Your task to perform on an android device: change the clock style Image 0: 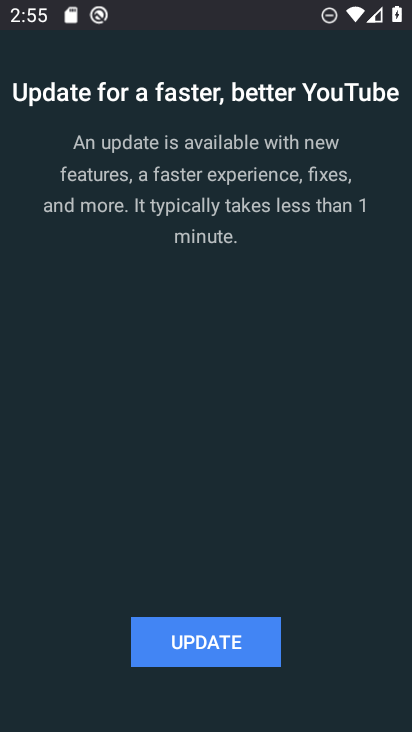
Step 0: press home button
Your task to perform on an android device: change the clock style Image 1: 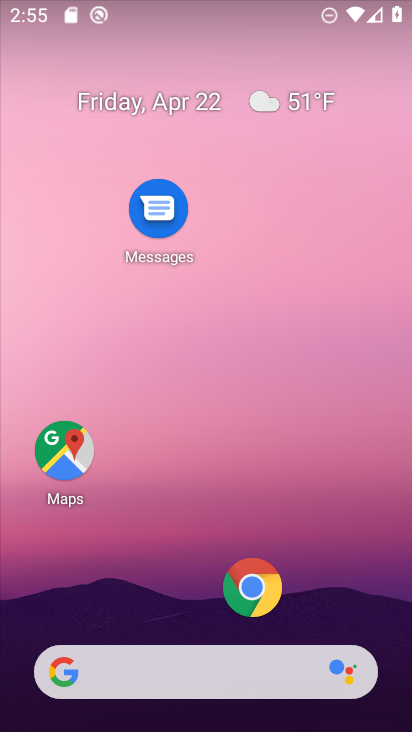
Step 1: drag from (208, 506) to (217, 164)
Your task to perform on an android device: change the clock style Image 2: 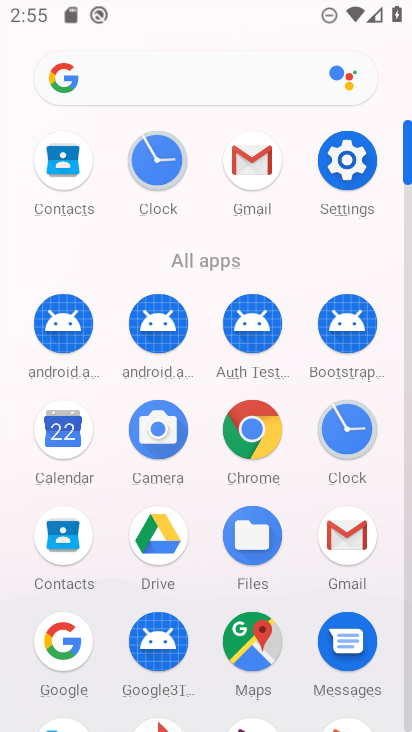
Step 2: click (348, 445)
Your task to perform on an android device: change the clock style Image 3: 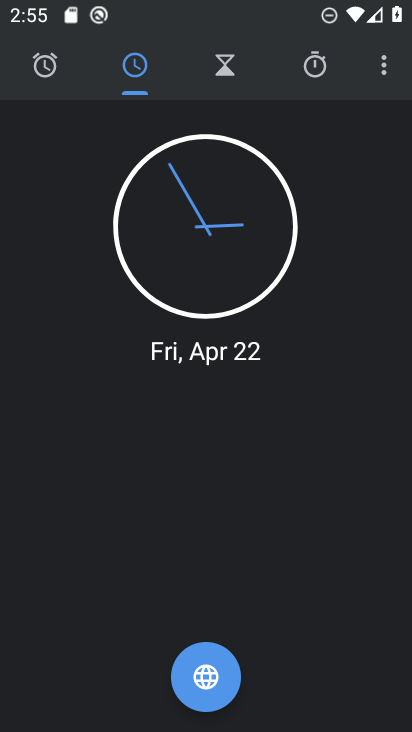
Step 3: click (381, 71)
Your task to perform on an android device: change the clock style Image 4: 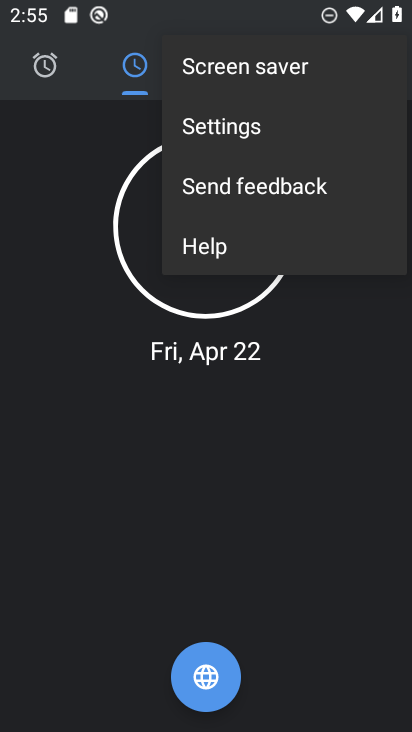
Step 4: click (258, 127)
Your task to perform on an android device: change the clock style Image 5: 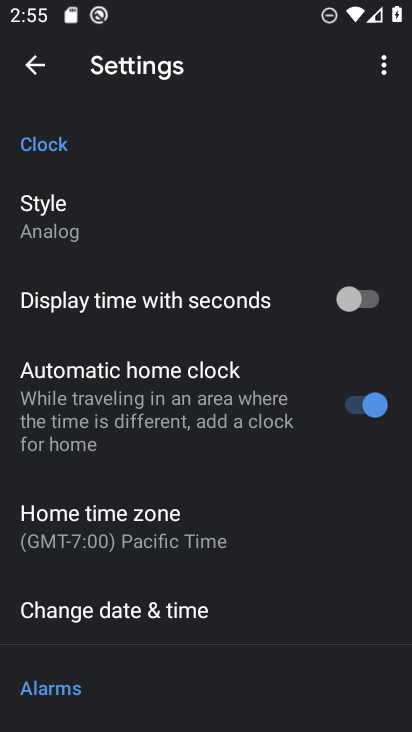
Step 5: click (54, 212)
Your task to perform on an android device: change the clock style Image 6: 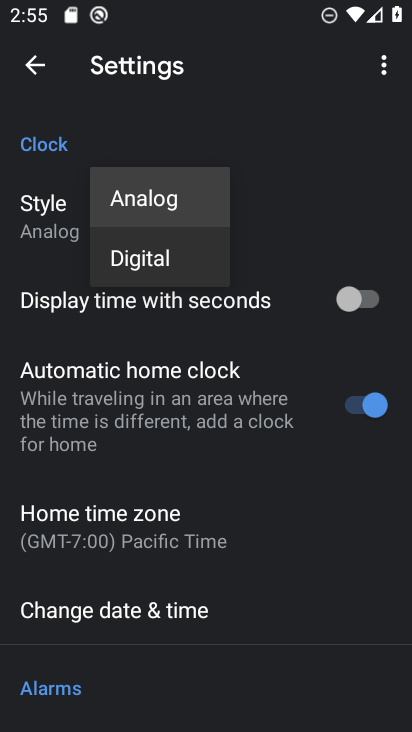
Step 6: click (135, 256)
Your task to perform on an android device: change the clock style Image 7: 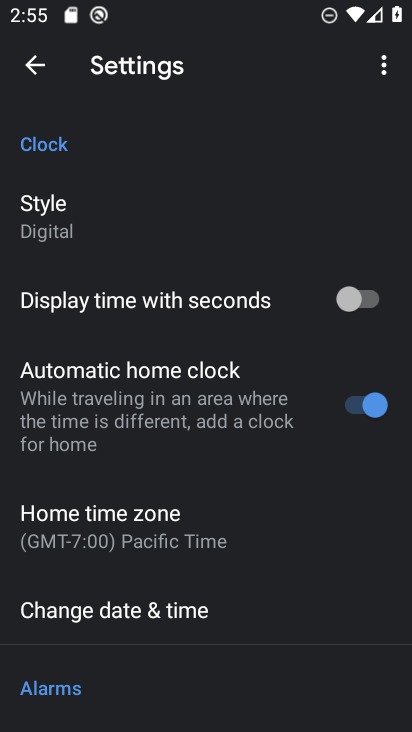
Step 7: task complete